Your task to perform on an android device: delete the emails in spam in the gmail app Image 0: 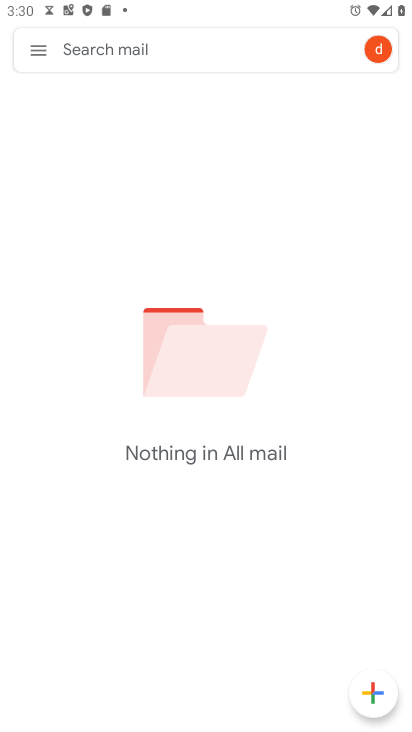
Step 0: click (35, 45)
Your task to perform on an android device: delete the emails in spam in the gmail app Image 1: 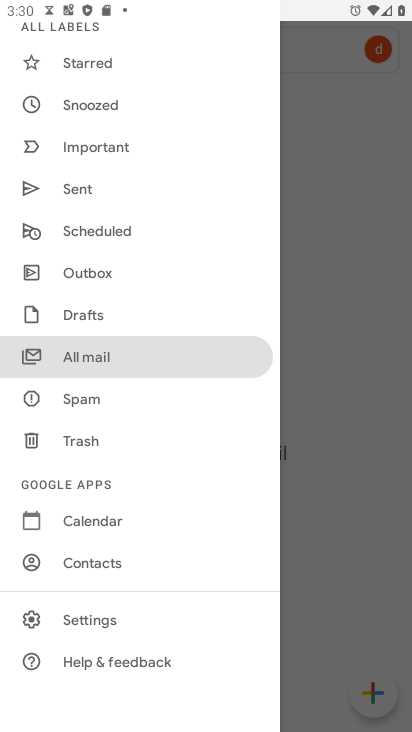
Step 1: click (116, 404)
Your task to perform on an android device: delete the emails in spam in the gmail app Image 2: 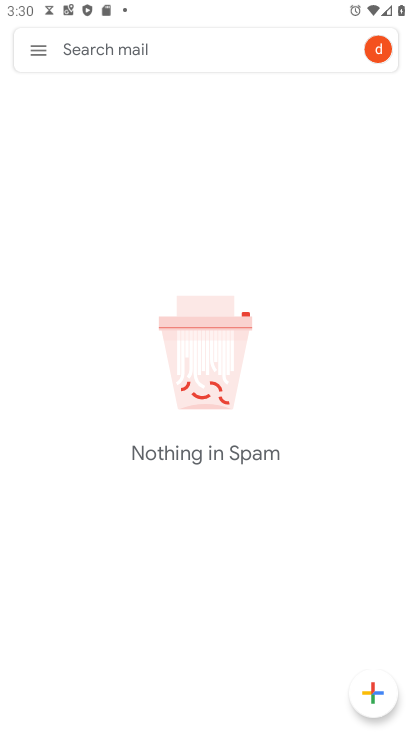
Step 2: task complete